Your task to perform on an android device: see creations saved in the google photos Image 0: 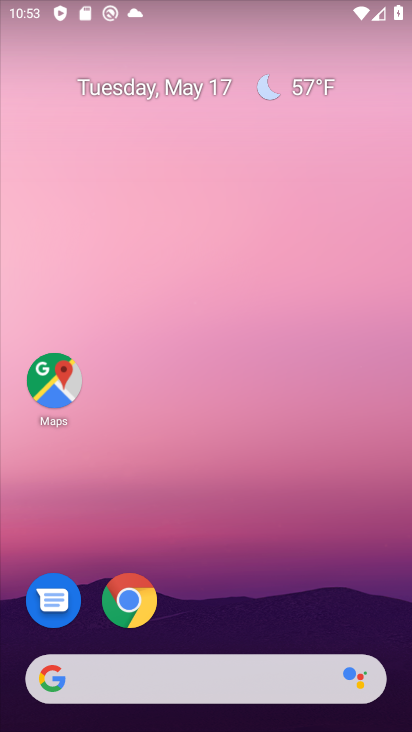
Step 0: drag from (292, 525) to (224, 54)
Your task to perform on an android device: see creations saved in the google photos Image 1: 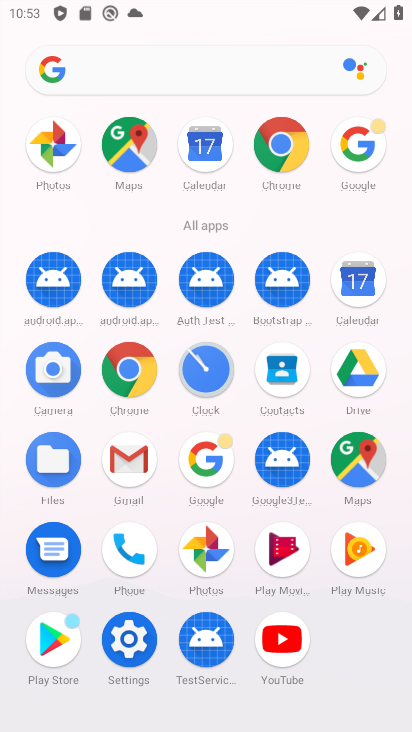
Step 1: click (221, 539)
Your task to perform on an android device: see creations saved in the google photos Image 2: 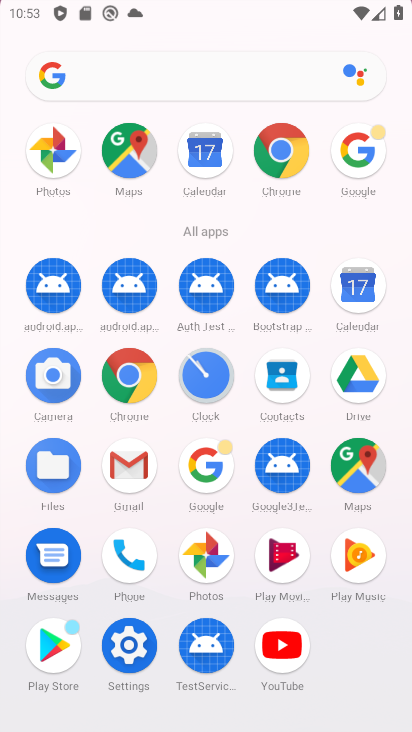
Step 2: click (209, 543)
Your task to perform on an android device: see creations saved in the google photos Image 3: 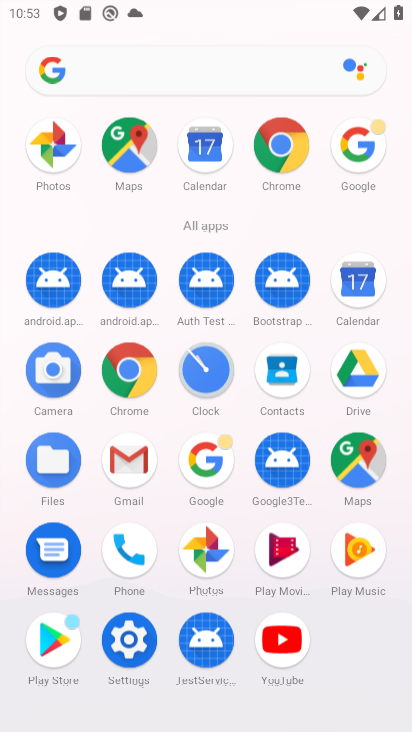
Step 3: click (209, 543)
Your task to perform on an android device: see creations saved in the google photos Image 4: 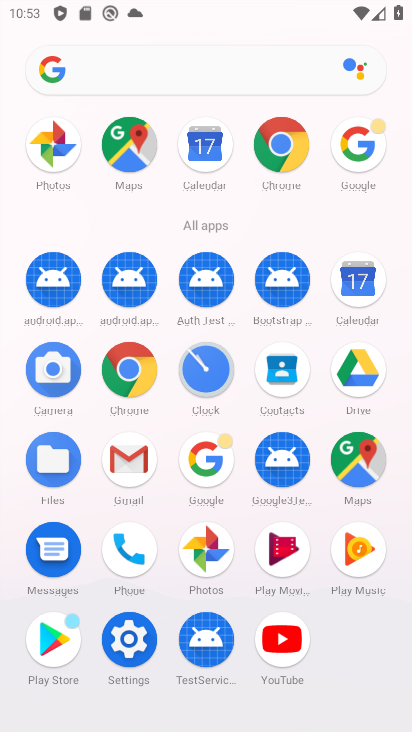
Step 4: click (209, 543)
Your task to perform on an android device: see creations saved in the google photos Image 5: 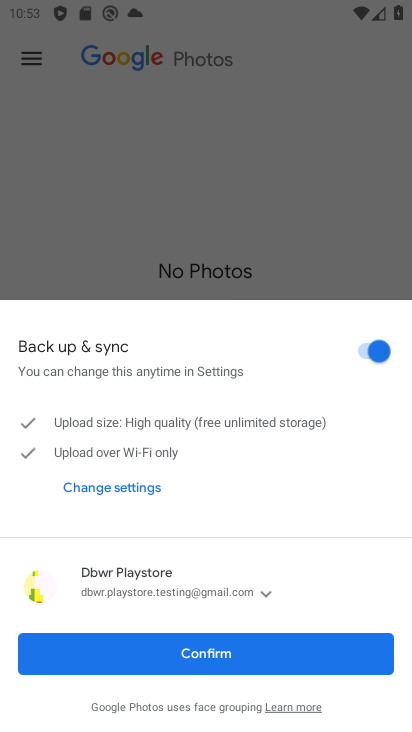
Step 5: click (240, 639)
Your task to perform on an android device: see creations saved in the google photos Image 6: 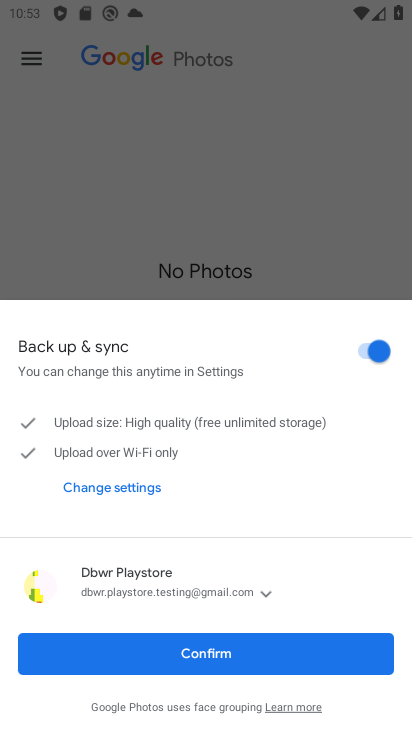
Step 6: click (239, 640)
Your task to perform on an android device: see creations saved in the google photos Image 7: 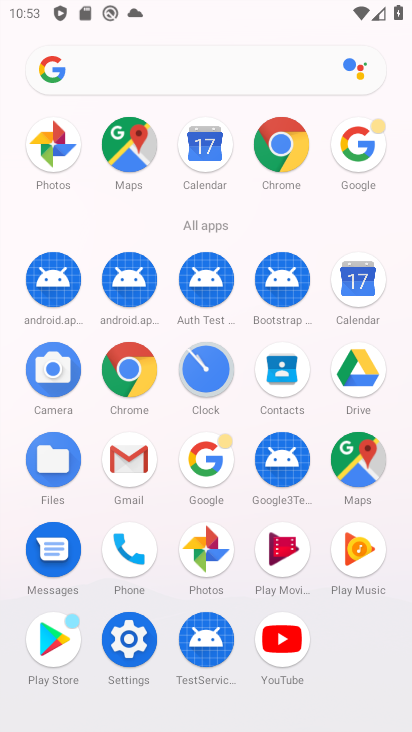
Step 7: click (246, 639)
Your task to perform on an android device: see creations saved in the google photos Image 8: 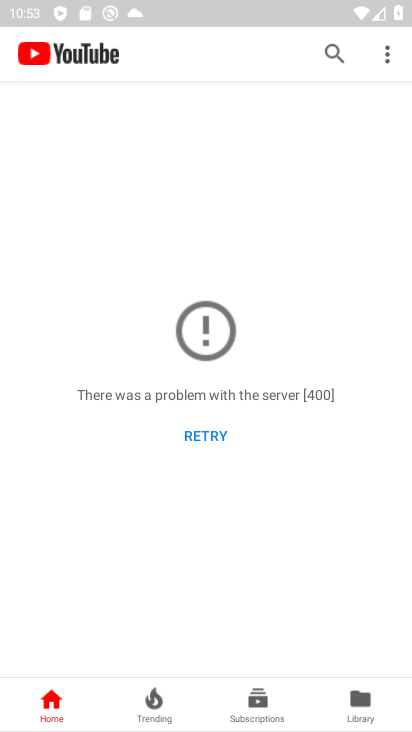
Step 8: press back button
Your task to perform on an android device: see creations saved in the google photos Image 9: 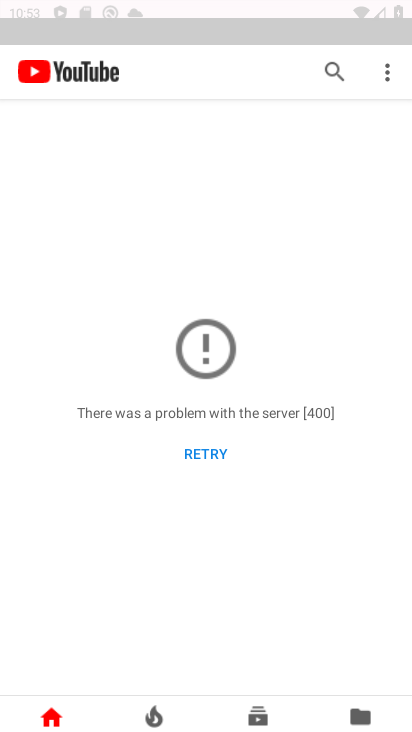
Step 9: press back button
Your task to perform on an android device: see creations saved in the google photos Image 10: 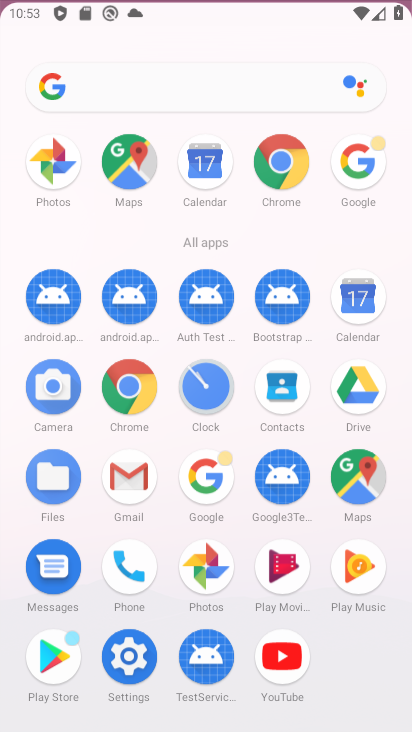
Step 10: press back button
Your task to perform on an android device: see creations saved in the google photos Image 11: 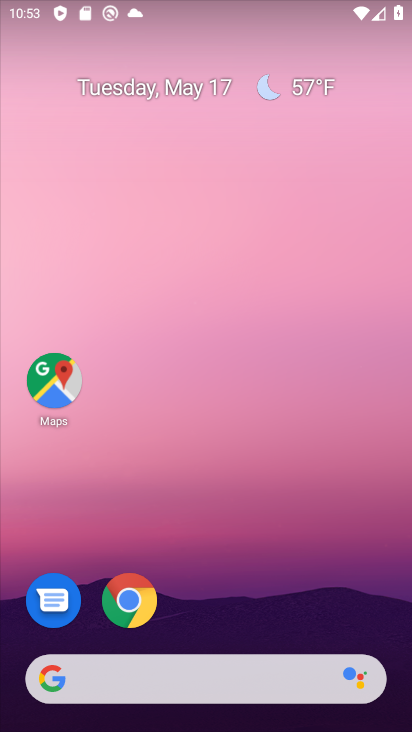
Step 11: drag from (242, 661) to (61, 5)
Your task to perform on an android device: see creations saved in the google photos Image 12: 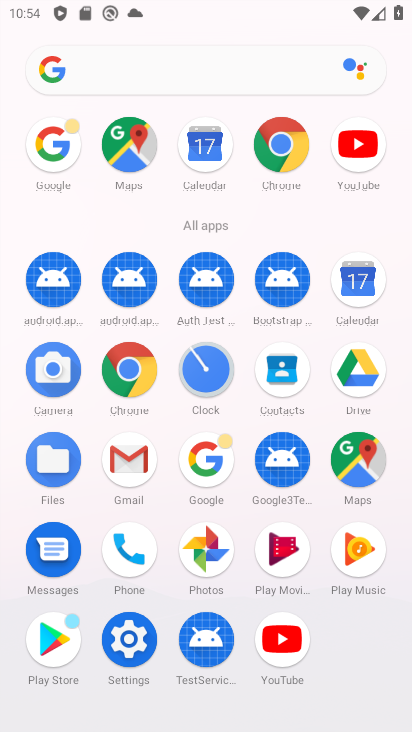
Step 12: click (206, 561)
Your task to perform on an android device: see creations saved in the google photos Image 13: 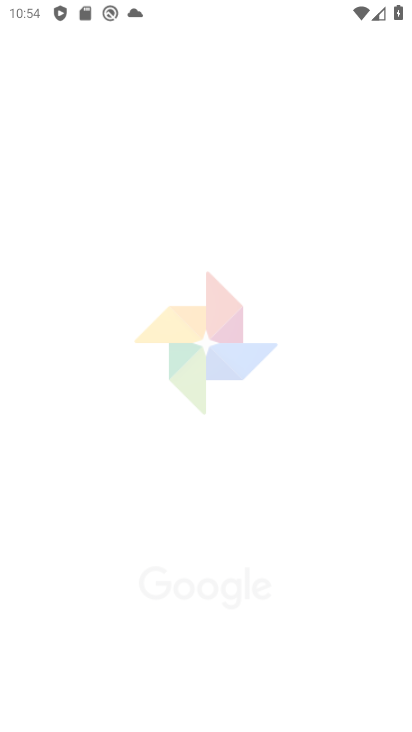
Step 13: click (203, 547)
Your task to perform on an android device: see creations saved in the google photos Image 14: 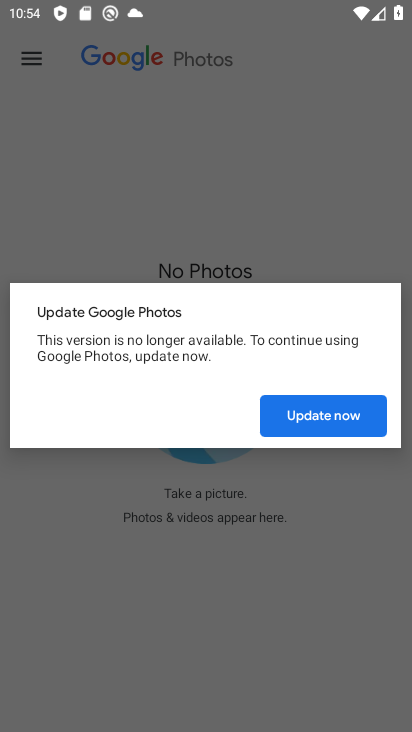
Step 14: click (330, 415)
Your task to perform on an android device: see creations saved in the google photos Image 15: 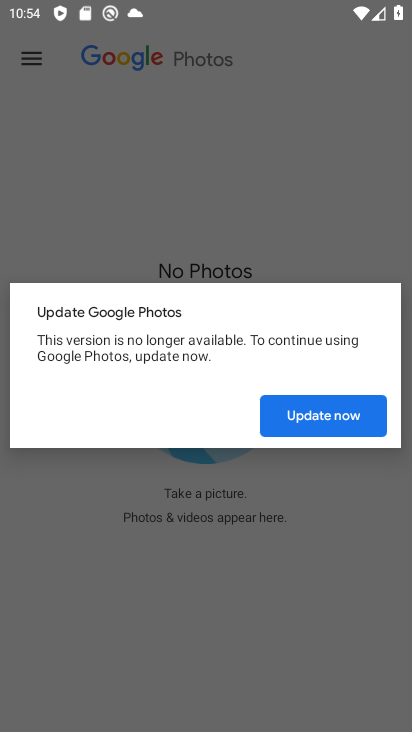
Step 15: click (329, 416)
Your task to perform on an android device: see creations saved in the google photos Image 16: 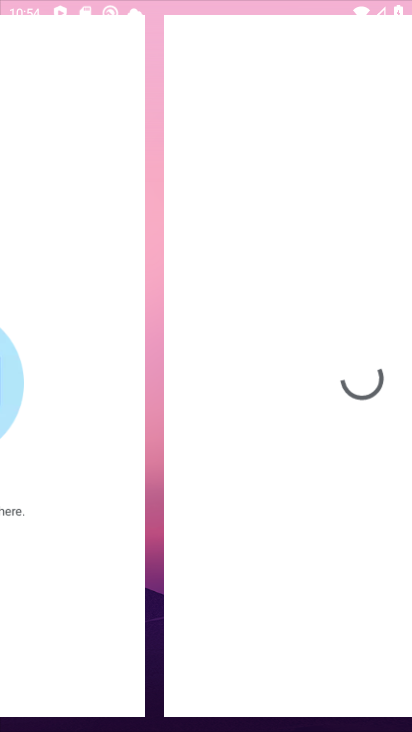
Step 16: click (330, 418)
Your task to perform on an android device: see creations saved in the google photos Image 17: 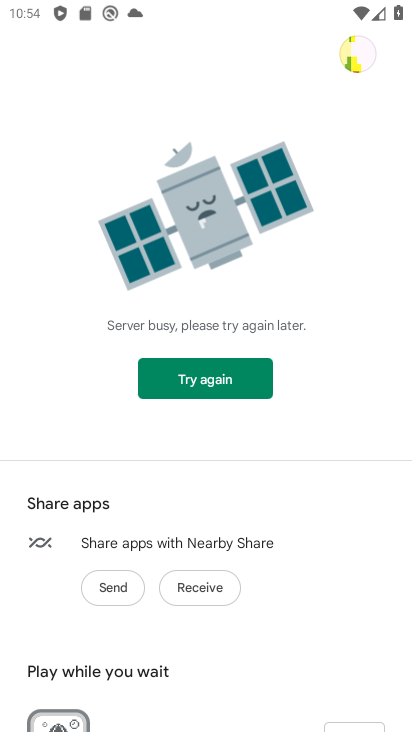
Step 17: task complete